Your task to perform on an android device: open the mobile data screen to see how much data has been used Image 0: 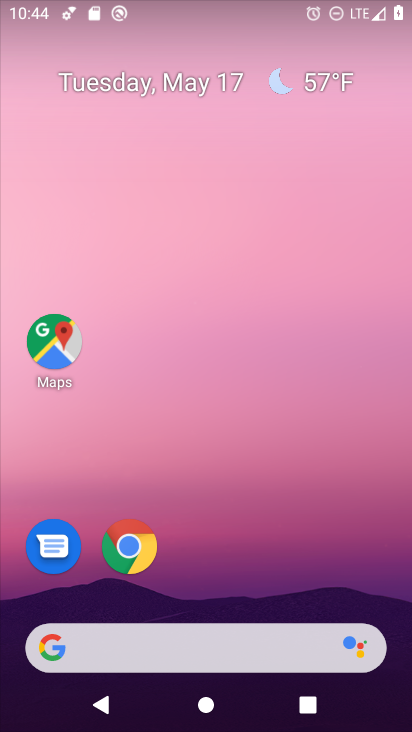
Step 0: drag from (298, 599) to (309, 27)
Your task to perform on an android device: open the mobile data screen to see how much data has been used Image 1: 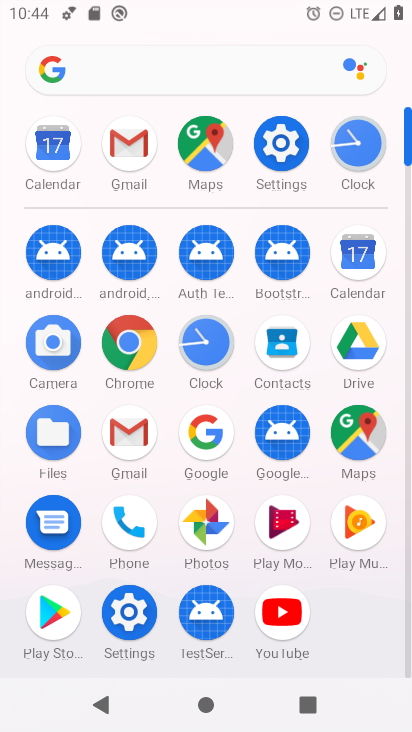
Step 1: click (281, 139)
Your task to perform on an android device: open the mobile data screen to see how much data has been used Image 2: 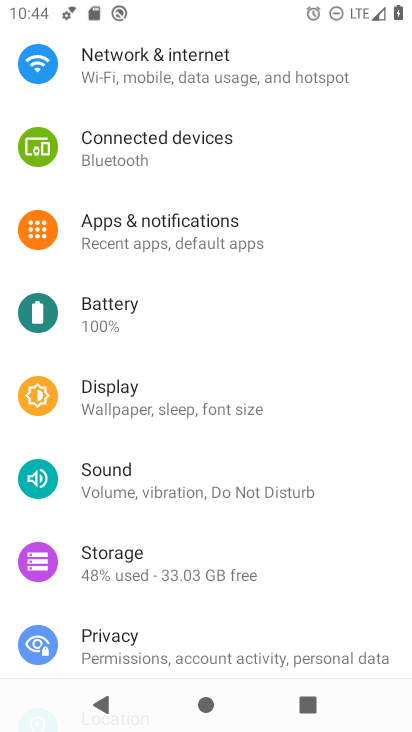
Step 2: click (141, 74)
Your task to perform on an android device: open the mobile data screen to see how much data has been used Image 3: 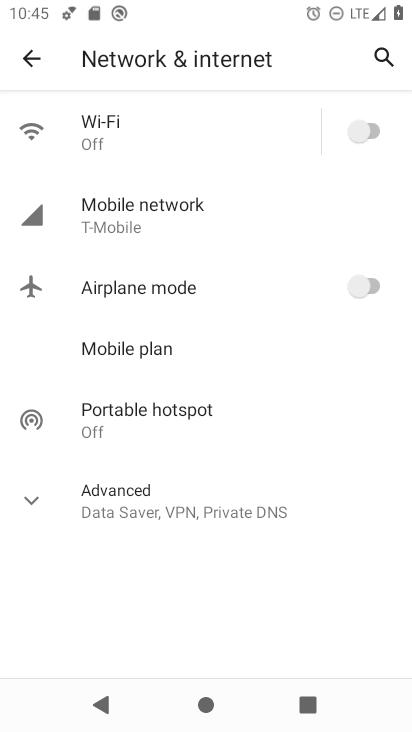
Step 3: click (112, 232)
Your task to perform on an android device: open the mobile data screen to see how much data has been used Image 4: 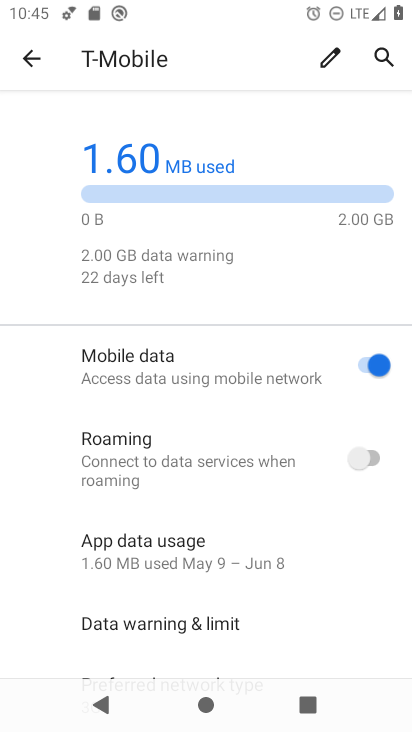
Step 4: click (141, 558)
Your task to perform on an android device: open the mobile data screen to see how much data has been used Image 5: 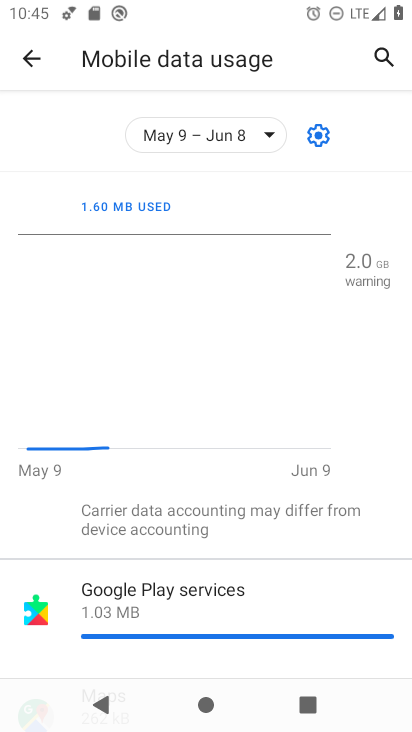
Step 5: task complete